Your task to perform on an android device: Go to Android settings Image 0: 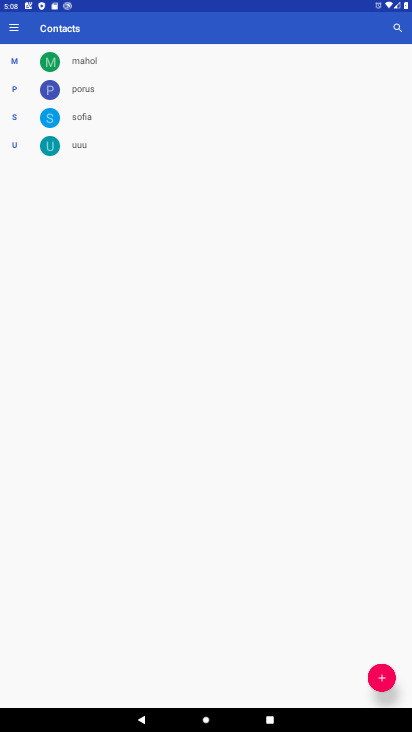
Step 0: press home button
Your task to perform on an android device: Go to Android settings Image 1: 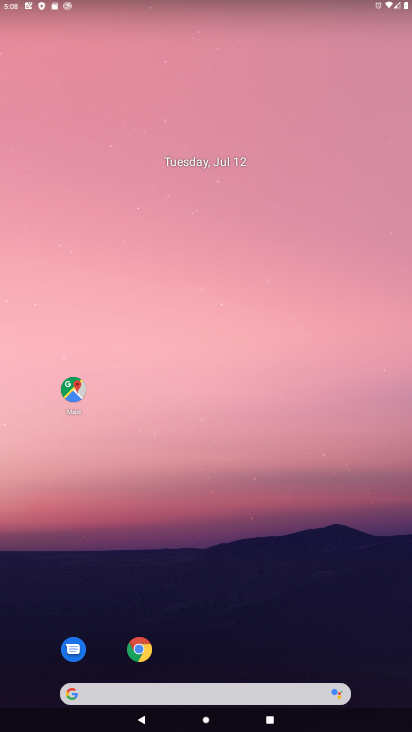
Step 1: drag from (202, 689) to (210, 122)
Your task to perform on an android device: Go to Android settings Image 2: 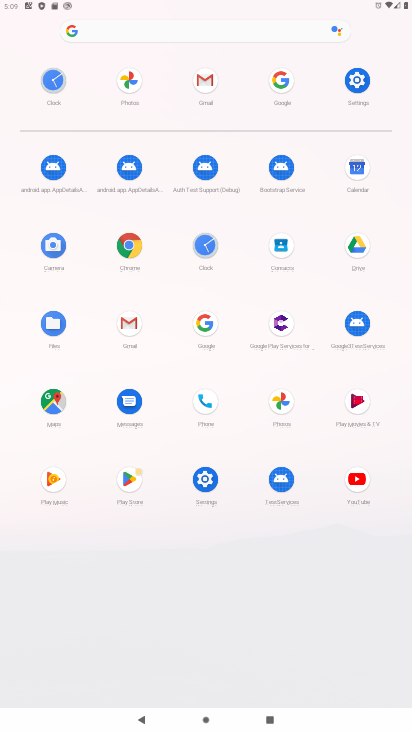
Step 2: click (358, 80)
Your task to perform on an android device: Go to Android settings Image 3: 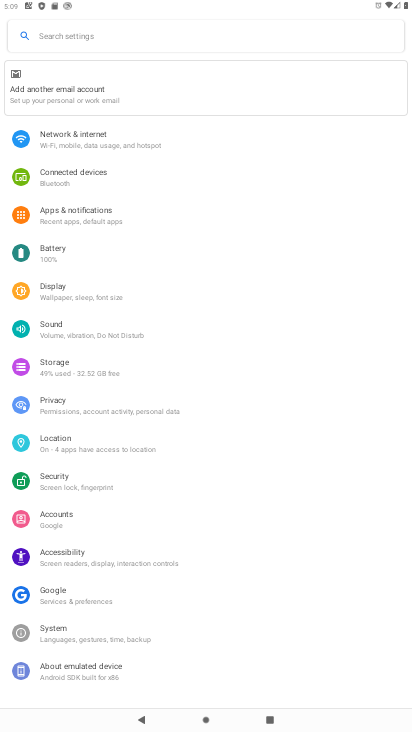
Step 3: task complete